Your task to perform on an android device: toggle pop-ups in chrome Image 0: 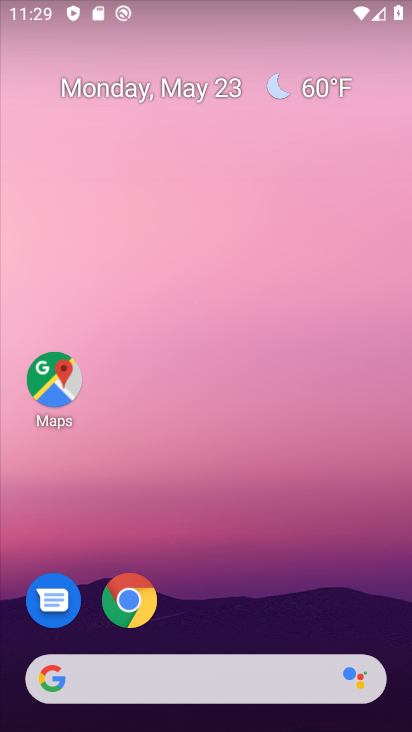
Step 0: drag from (260, 698) to (153, 128)
Your task to perform on an android device: toggle pop-ups in chrome Image 1: 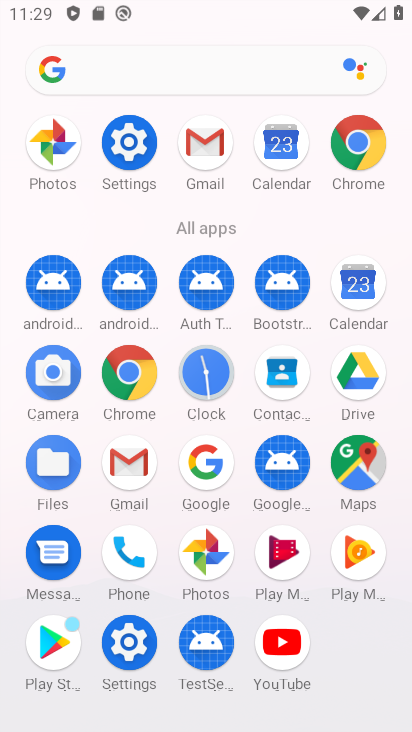
Step 1: click (346, 154)
Your task to perform on an android device: toggle pop-ups in chrome Image 2: 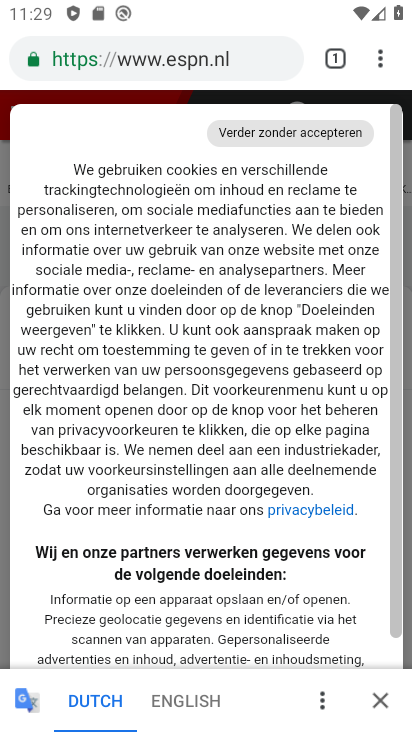
Step 2: drag from (281, 517) to (211, 219)
Your task to perform on an android device: toggle pop-ups in chrome Image 3: 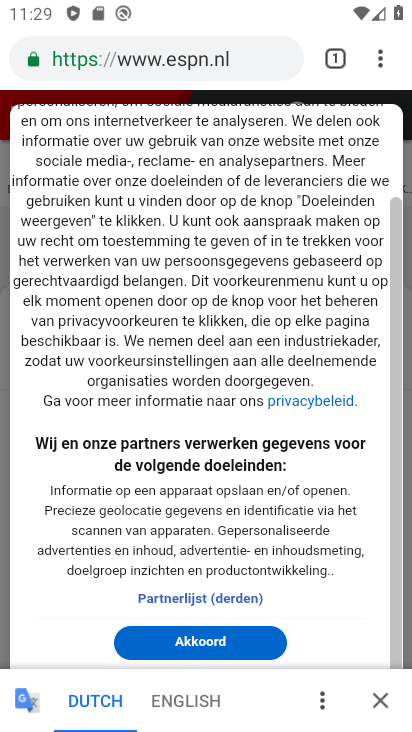
Step 3: click (220, 642)
Your task to perform on an android device: toggle pop-ups in chrome Image 4: 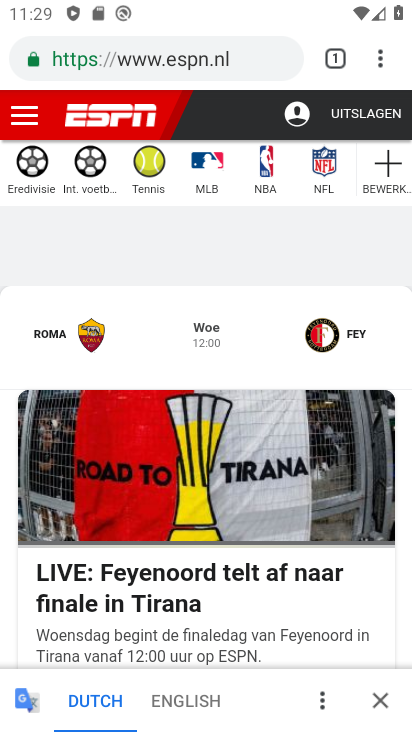
Step 4: click (369, 70)
Your task to perform on an android device: toggle pop-ups in chrome Image 5: 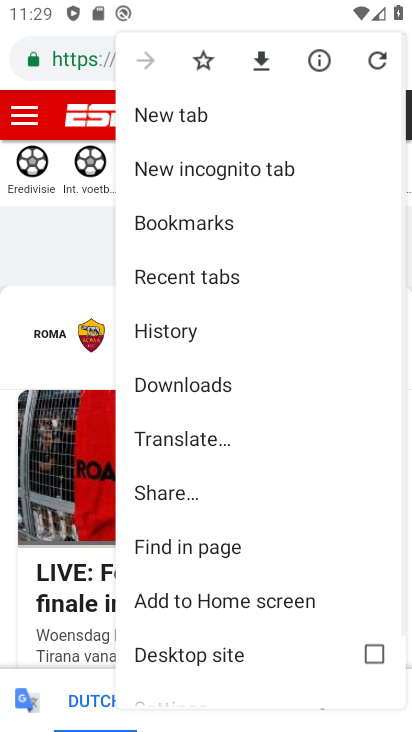
Step 5: drag from (209, 601) to (186, 404)
Your task to perform on an android device: toggle pop-ups in chrome Image 6: 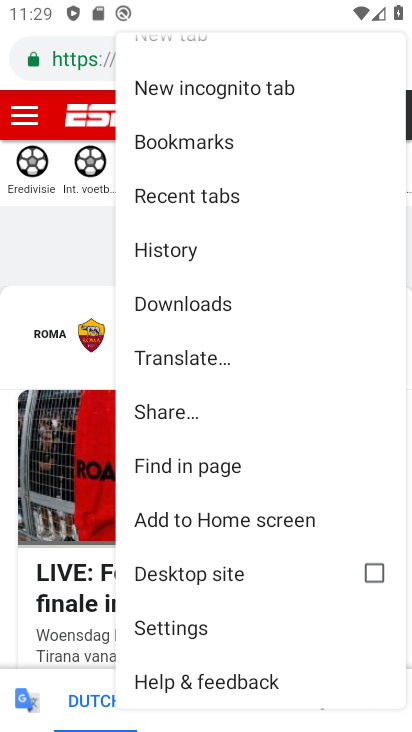
Step 6: click (220, 630)
Your task to perform on an android device: toggle pop-ups in chrome Image 7: 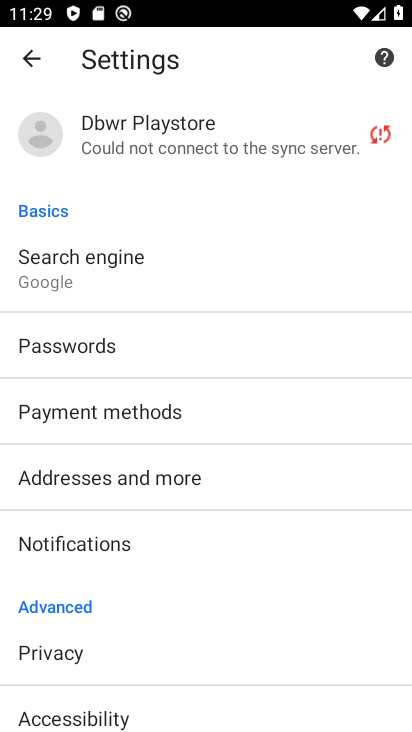
Step 7: drag from (197, 586) to (138, 276)
Your task to perform on an android device: toggle pop-ups in chrome Image 8: 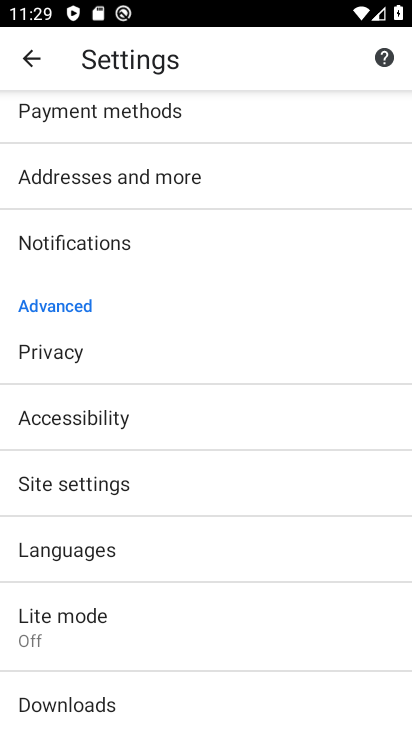
Step 8: click (119, 486)
Your task to perform on an android device: toggle pop-ups in chrome Image 9: 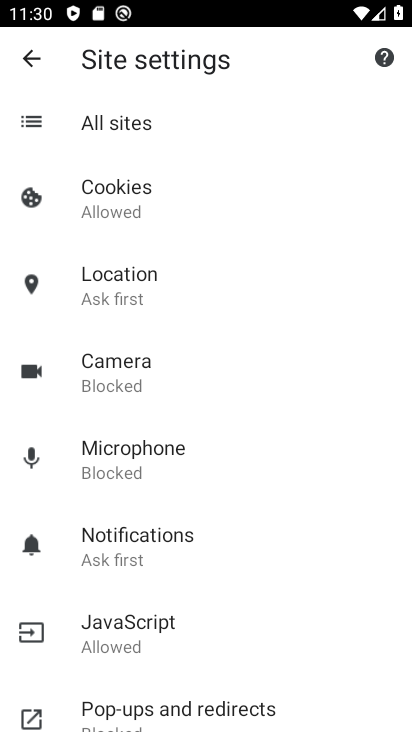
Step 9: click (173, 704)
Your task to perform on an android device: toggle pop-ups in chrome Image 10: 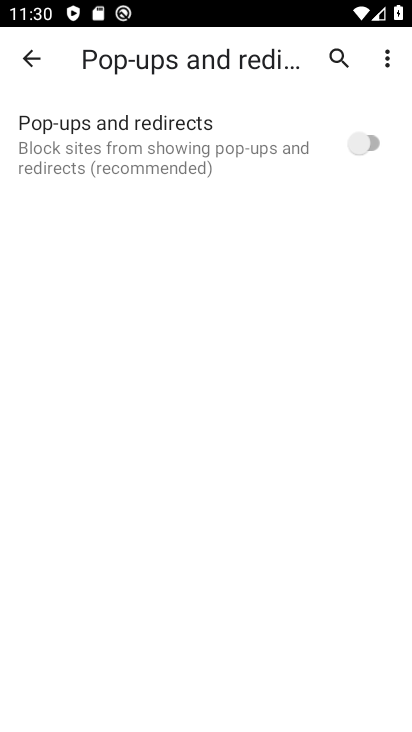
Step 10: task complete